Your task to perform on an android device: choose inbox layout in the gmail app Image 0: 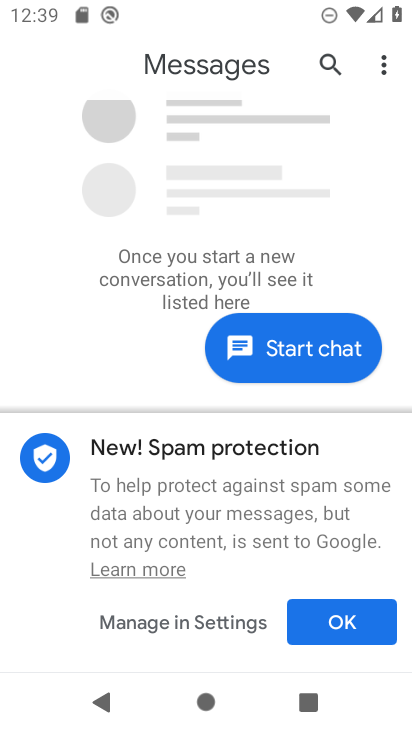
Step 0: press home button
Your task to perform on an android device: choose inbox layout in the gmail app Image 1: 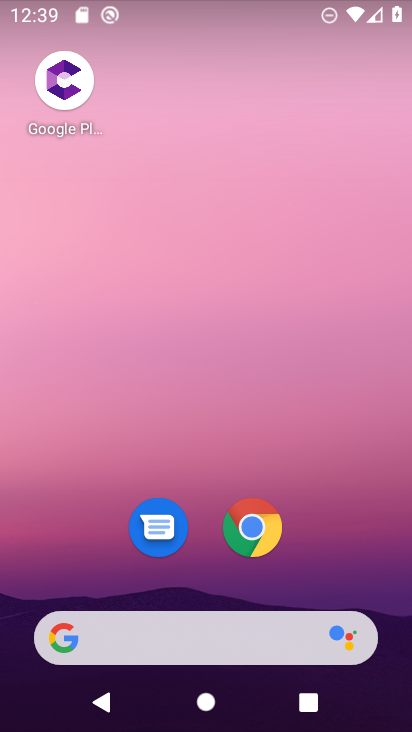
Step 1: drag from (227, 469) to (332, 12)
Your task to perform on an android device: choose inbox layout in the gmail app Image 2: 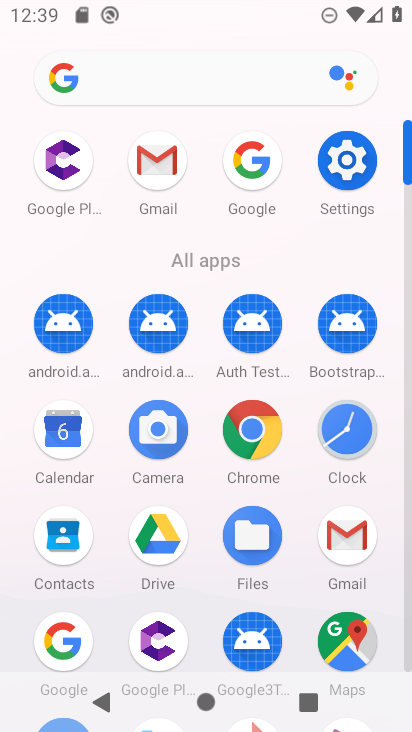
Step 2: click (154, 159)
Your task to perform on an android device: choose inbox layout in the gmail app Image 3: 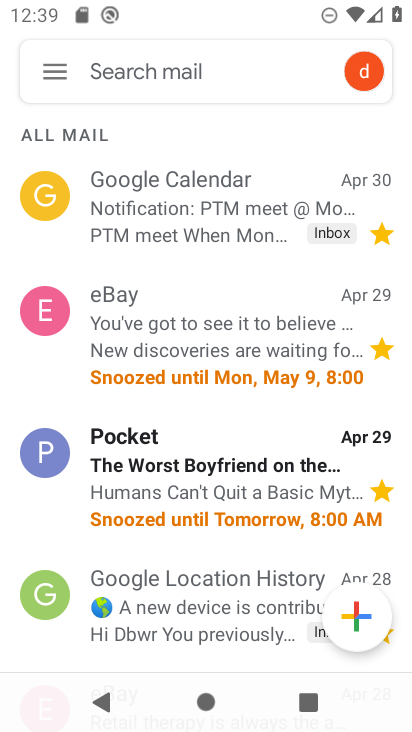
Step 3: click (55, 65)
Your task to perform on an android device: choose inbox layout in the gmail app Image 4: 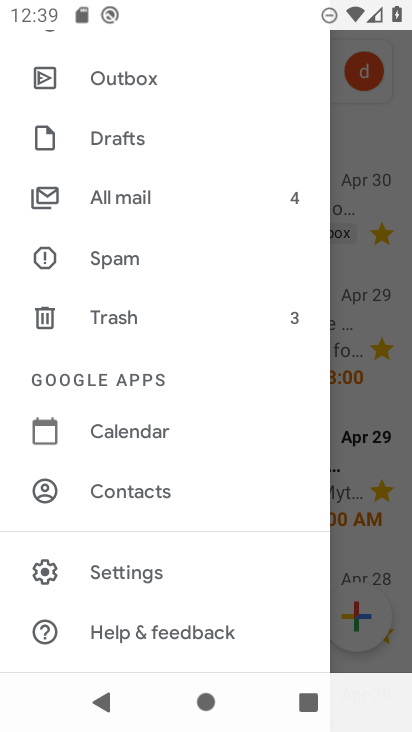
Step 4: click (133, 573)
Your task to perform on an android device: choose inbox layout in the gmail app Image 5: 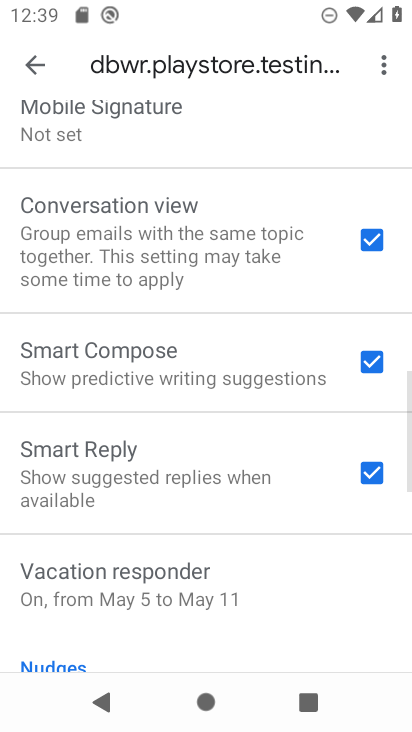
Step 5: drag from (123, 209) to (116, 400)
Your task to perform on an android device: choose inbox layout in the gmail app Image 6: 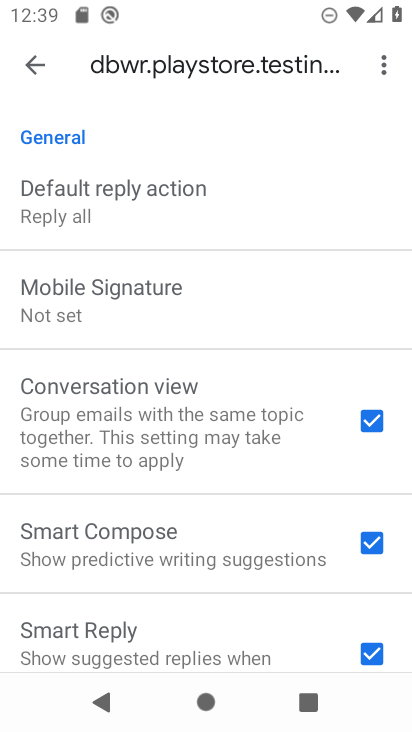
Step 6: drag from (125, 218) to (130, 396)
Your task to perform on an android device: choose inbox layout in the gmail app Image 7: 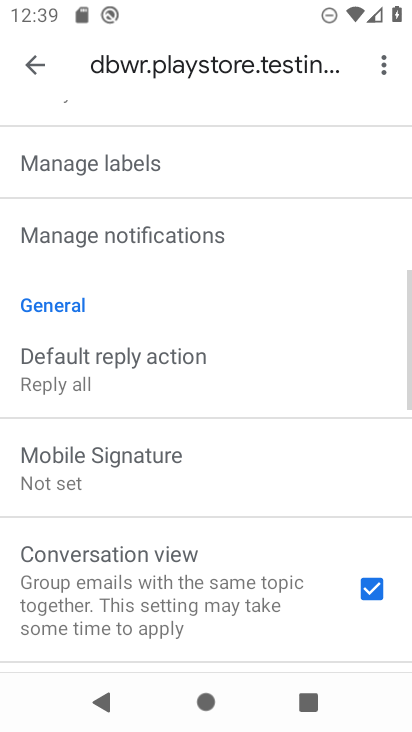
Step 7: drag from (118, 214) to (175, 347)
Your task to perform on an android device: choose inbox layout in the gmail app Image 8: 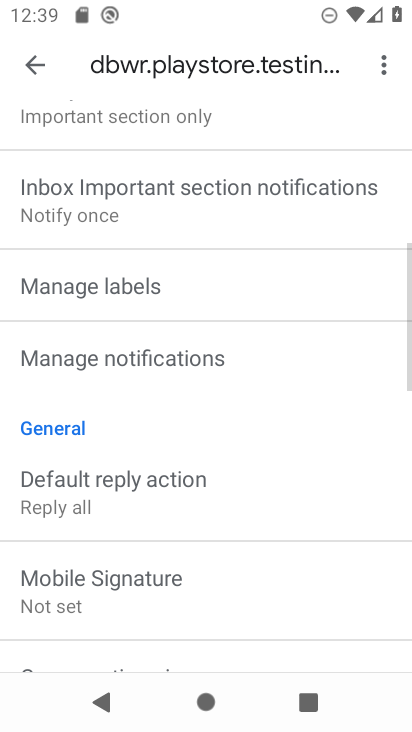
Step 8: drag from (138, 175) to (178, 324)
Your task to perform on an android device: choose inbox layout in the gmail app Image 9: 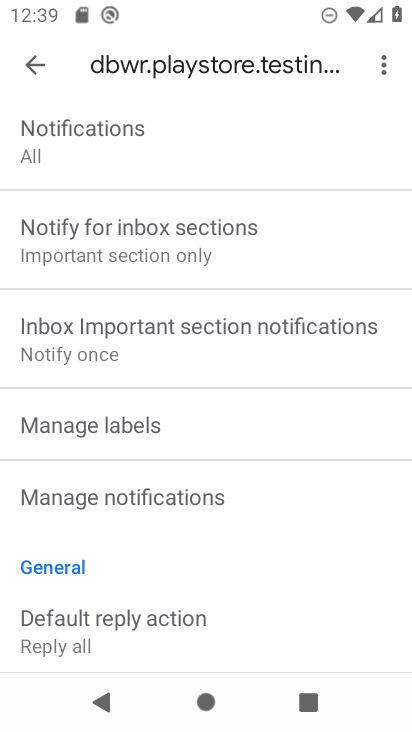
Step 9: drag from (161, 185) to (180, 339)
Your task to perform on an android device: choose inbox layout in the gmail app Image 10: 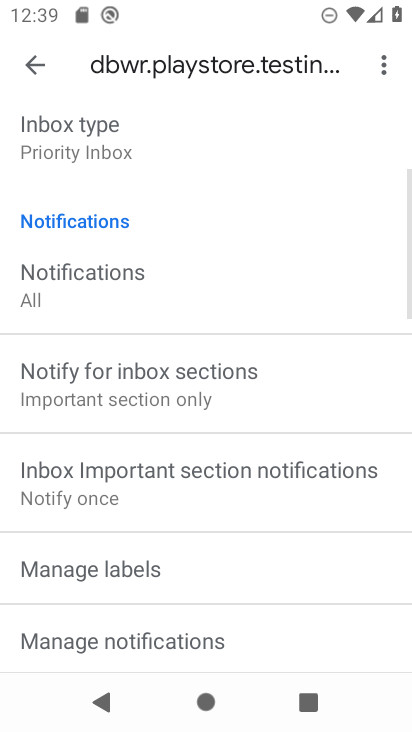
Step 10: drag from (153, 191) to (196, 321)
Your task to perform on an android device: choose inbox layout in the gmail app Image 11: 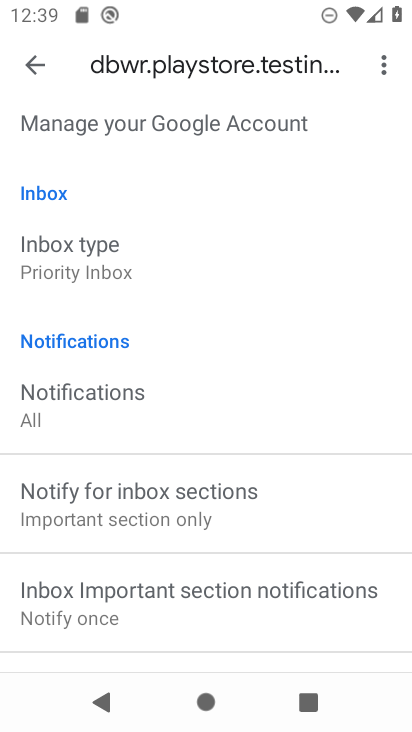
Step 11: click (105, 245)
Your task to perform on an android device: choose inbox layout in the gmail app Image 12: 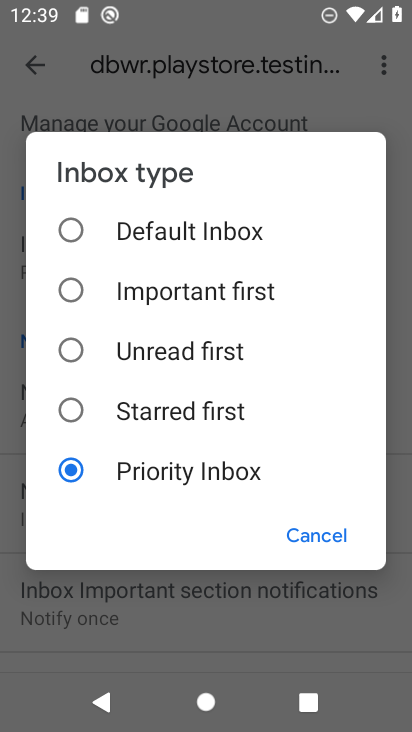
Step 12: click (127, 282)
Your task to perform on an android device: choose inbox layout in the gmail app Image 13: 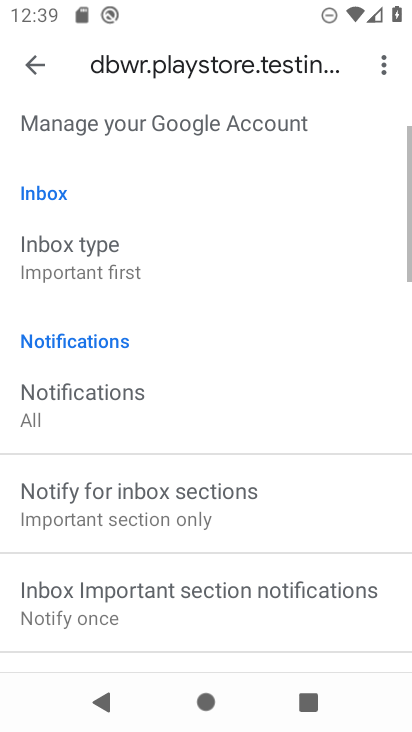
Step 13: task complete